Your task to perform on an android device: turn notification dots off Image 0: 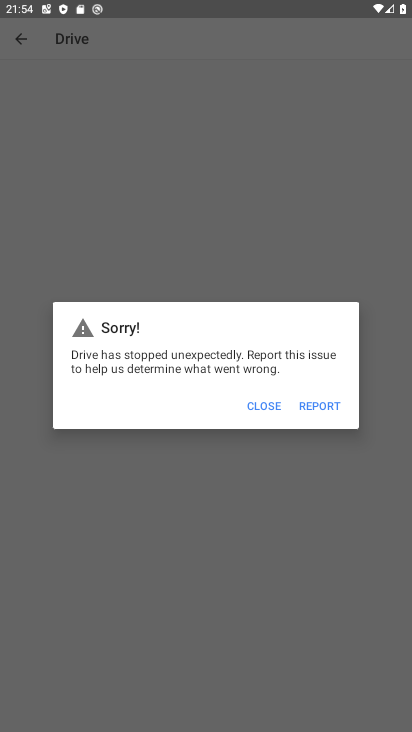
Step 0: press home button
Your task to perform on an android device: turn notification dots off Image 1: 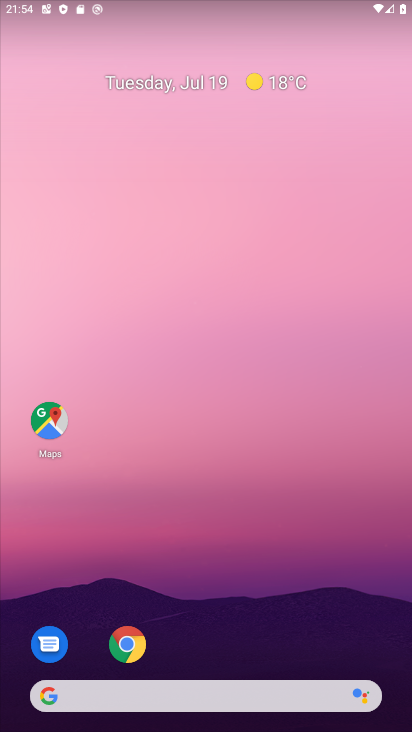
Step 1: drag from (169, 714) to (169, 239)
Your task to perform on an android device: turn notification dots off Image 2: 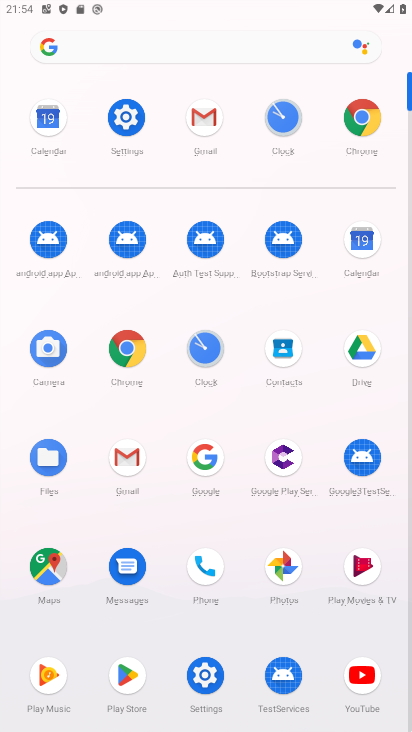
Step 2: click (130, 124)
Your task to perform on an android device: turn notification dots off Image 3: 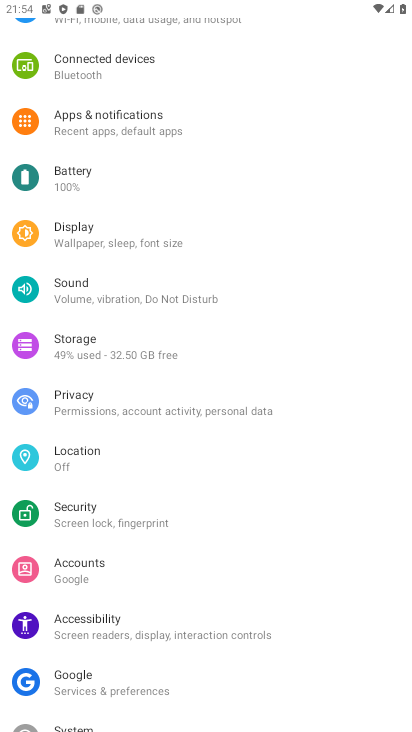
Step 3: click (132, 126)
Your task to perform on an android device: turn notification dots off Image 4: 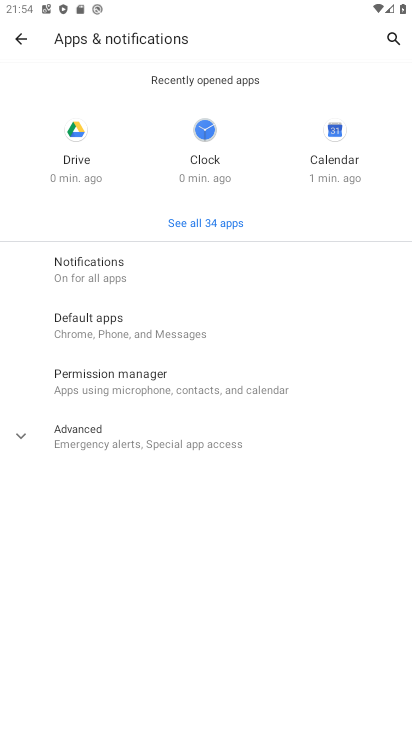
Step 4: click (73, 258)
Your task to perform on an android device: turn notification dots off Image 5: 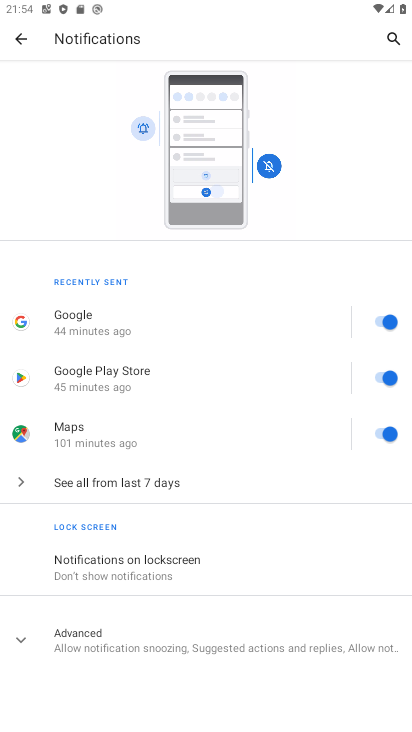
Step 5: click (116, 645)
Your task to perform on an android device: turn notification dots off Image 6: 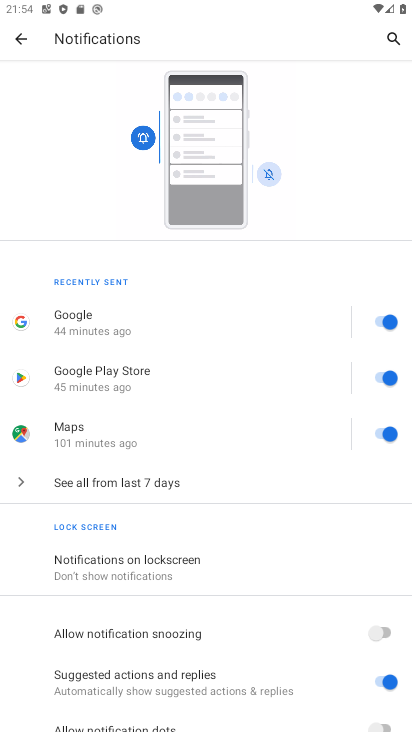
Step 6: task complete